Your task to perform on an android device: open app "Microsoft Outlook" (install if not already installed) Image 0: 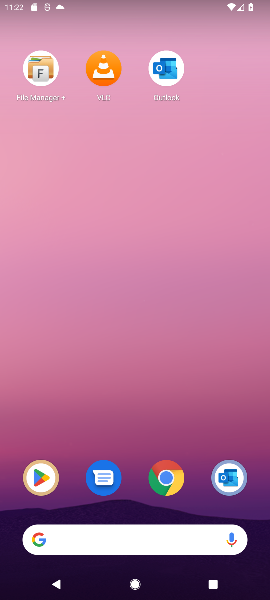
Step 0: task complete